Your task to perform on an android device: How much does a 2 bedroom apartment rent for in Atlanta? Image 0: 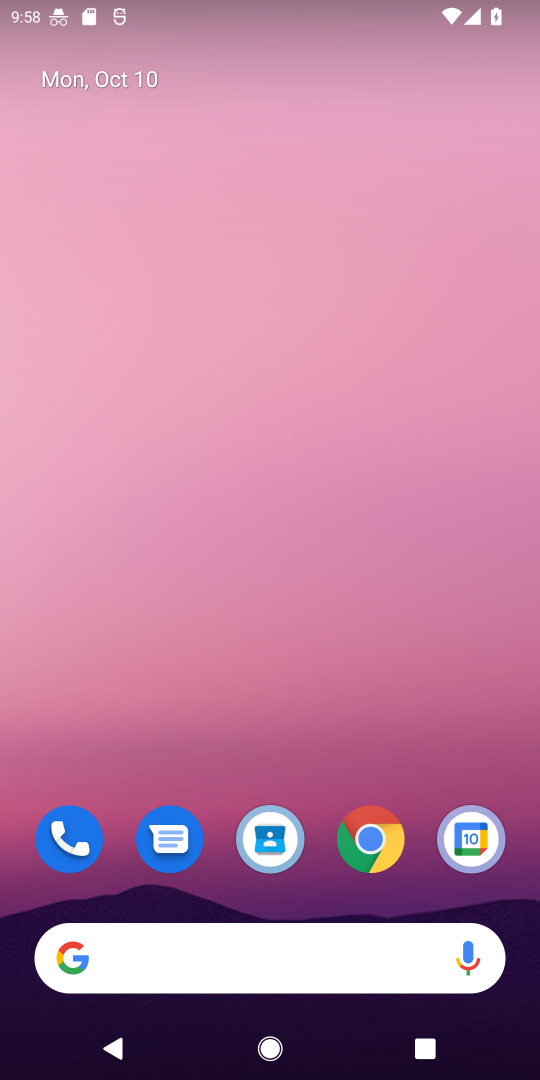
Step 0: drag from (313, 850) to (310, 129)
Your task to perform on an android device: How much does a 2 bedroom apartment rent for in Atlanta? Image 1: 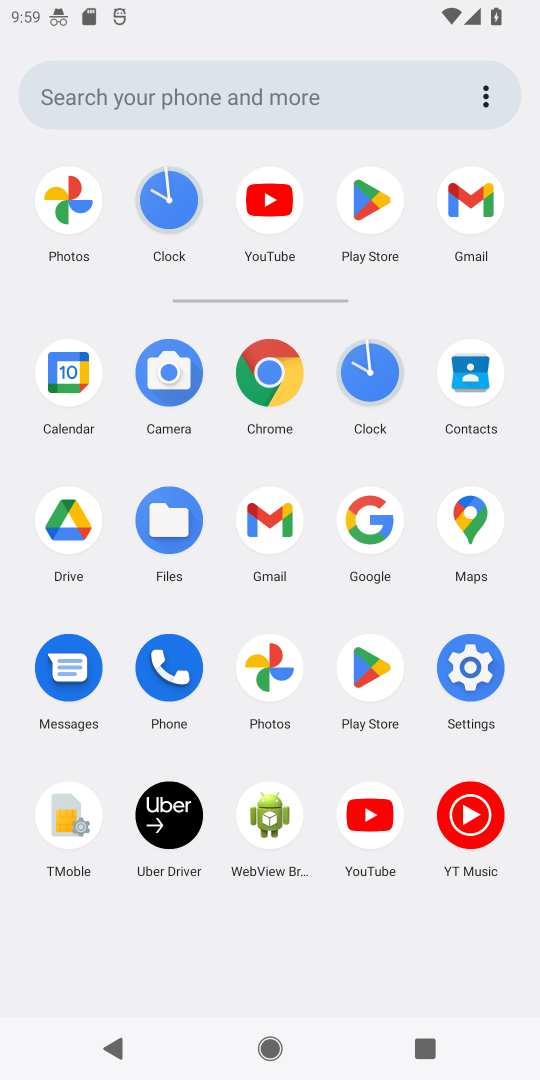
Step 1: click (266, 375)
Your task to perform on an android device: How much does a 2 bedroom apartment rent for in Atlanta? Image 2: 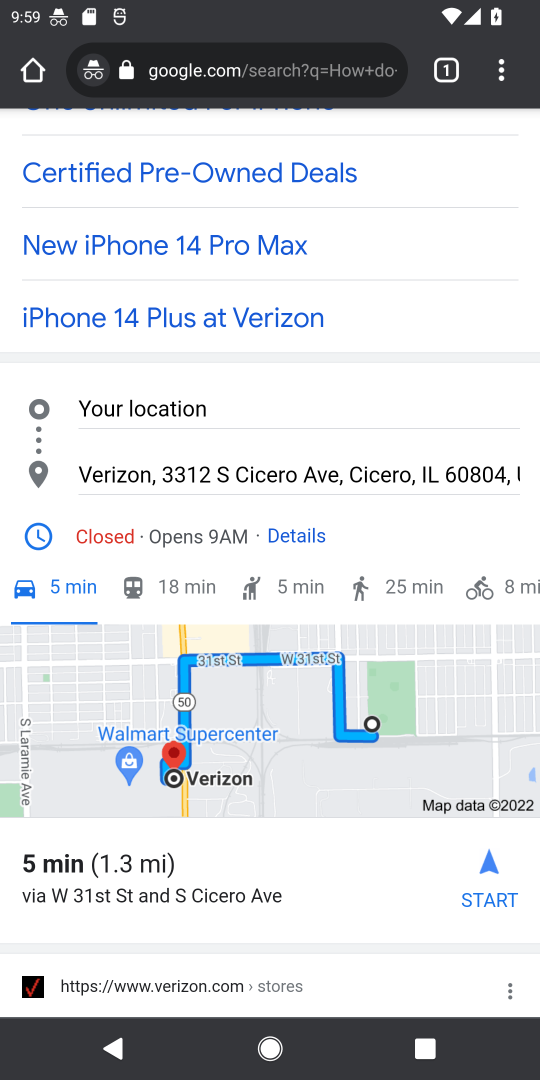
Step 2: click (313, 69)
Your task to perform on an android device: How much does a 2 bedroom apartment rent for in Atlanta? Image 3: 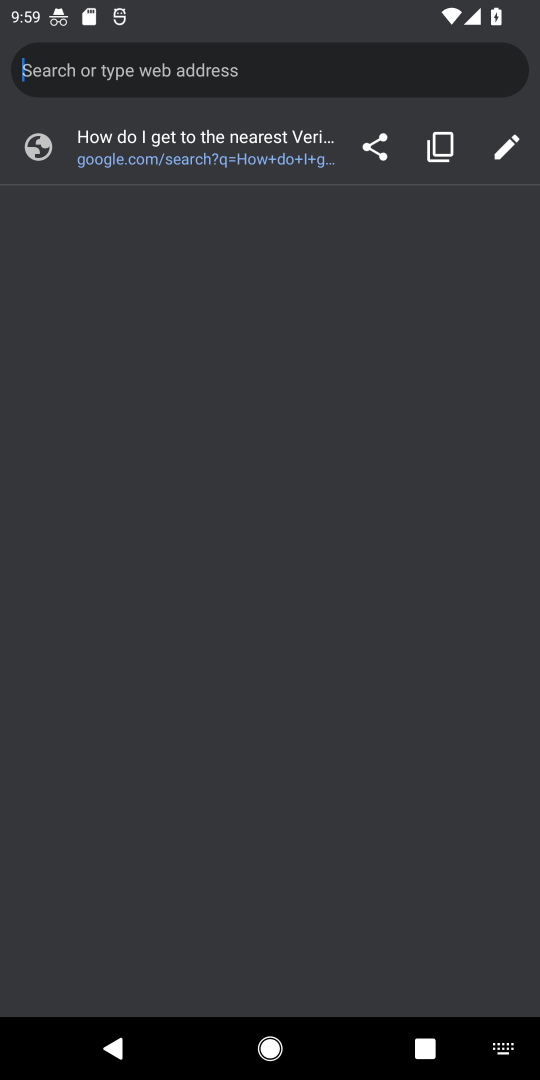
Step 3: type "How much does a 2 bedroom apartment rent for in Atlanta?"
Your task to perform on an android device: How much does a 2 bedroom apartment rent for in Atlanta? Image 4: 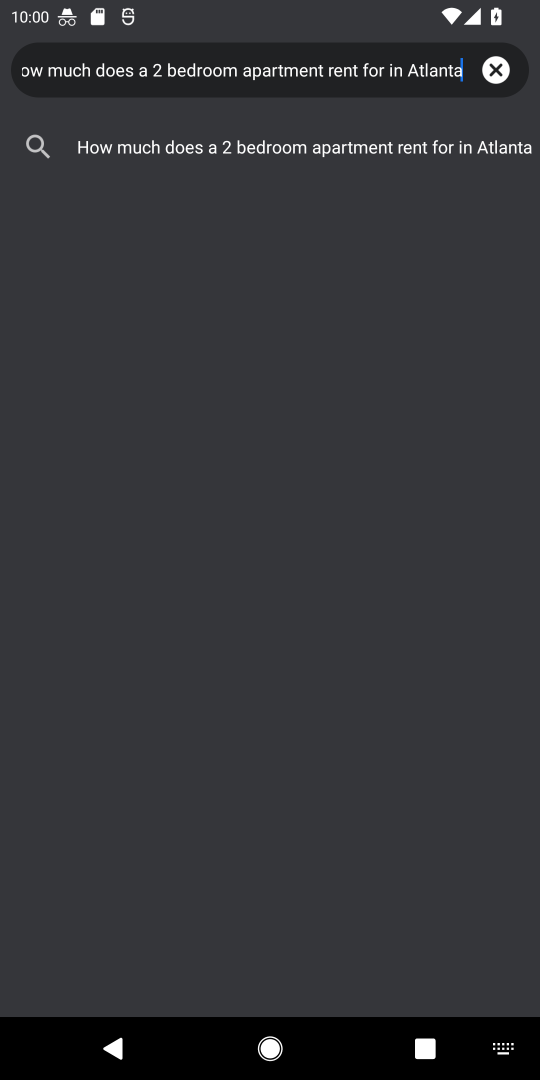
Step 4: press enter
Your task to perform on an android device: How much does a 2 bedroom apartment rent for in Atlanta? Image 5: 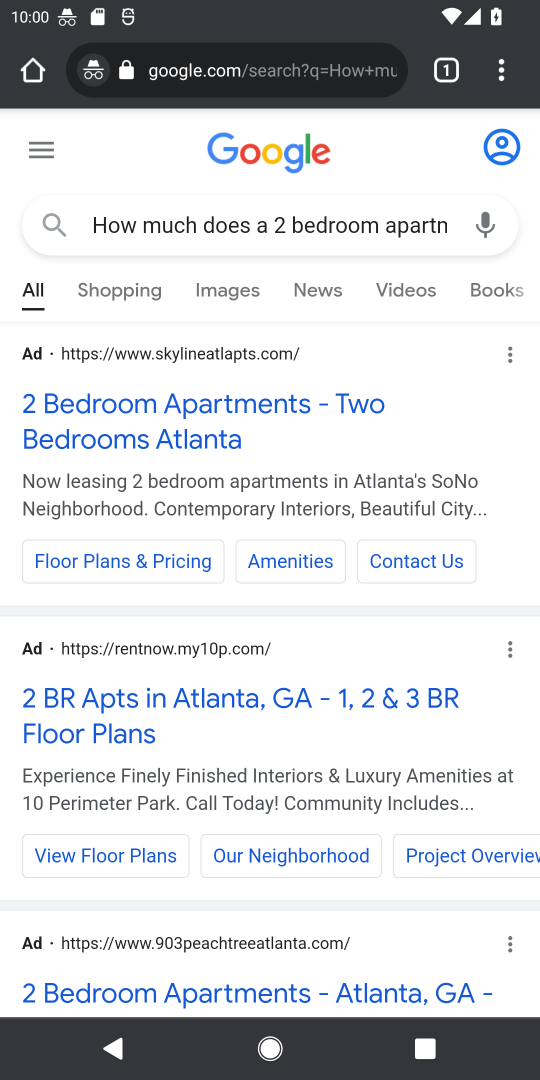
Step 5: drag from (217, 803) to (304, 173)
Your task to perform on an android device: How much does a 2 bedroom apartment rent for in Atlanta? Image 6: 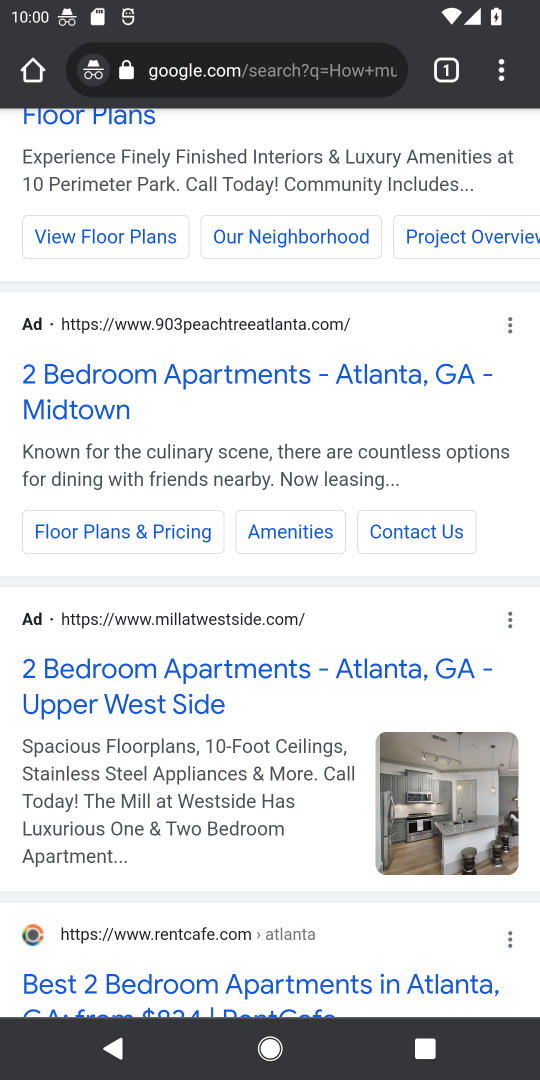
Step 6: drag from (257, 737) to (329, 258)
Your task to perform on an android device: How much does a 2 bedroom apartment rent for in Atlanta? Image 7: 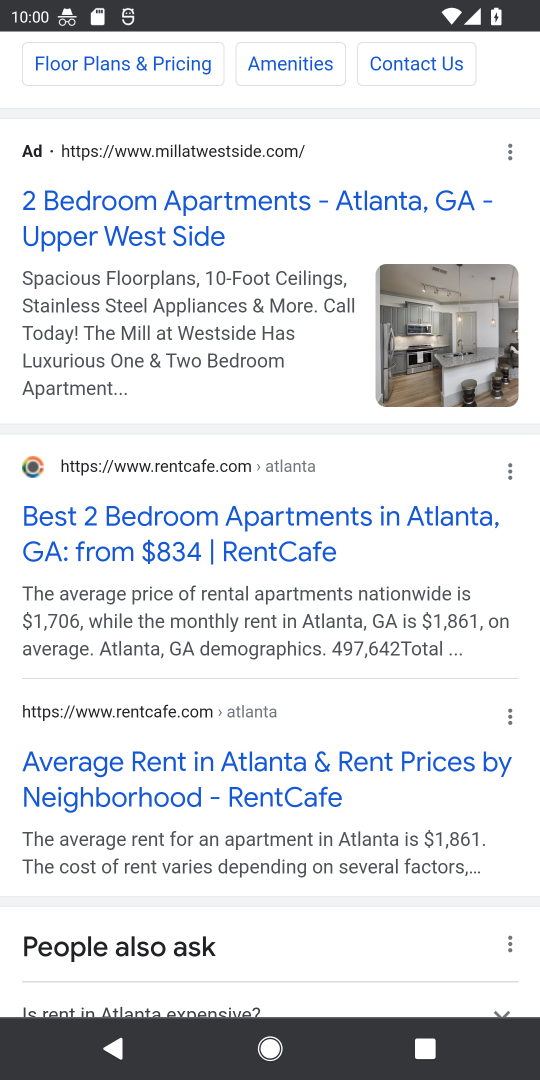
Step 7: click (339, 518)
Your task to perform on an android device: How much does a 2 bedroom apartment rent for in Atlanta? Image 8: 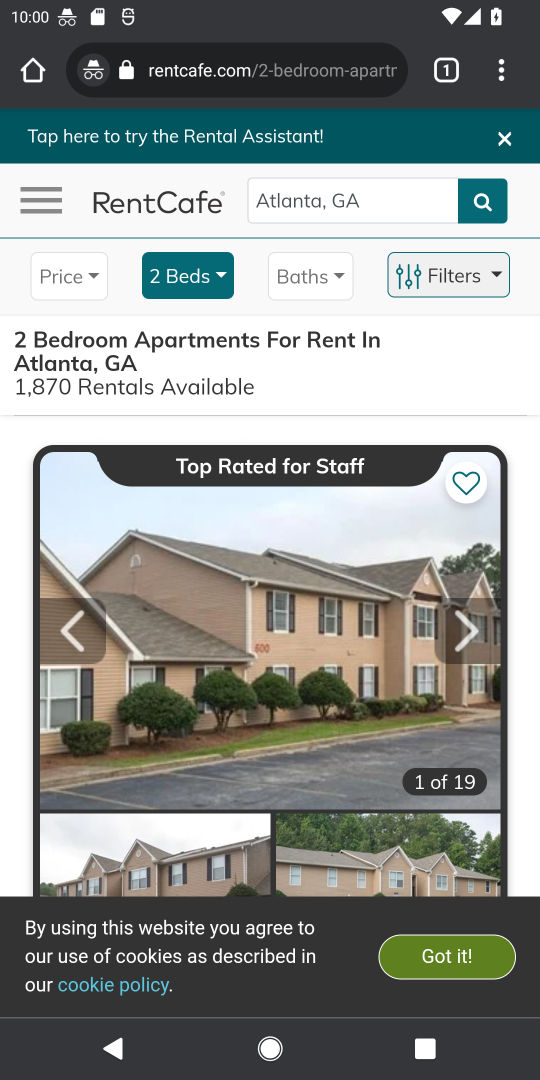
Step 8: task complete